Your task to perform on an android device: turn on wifi Image 0: 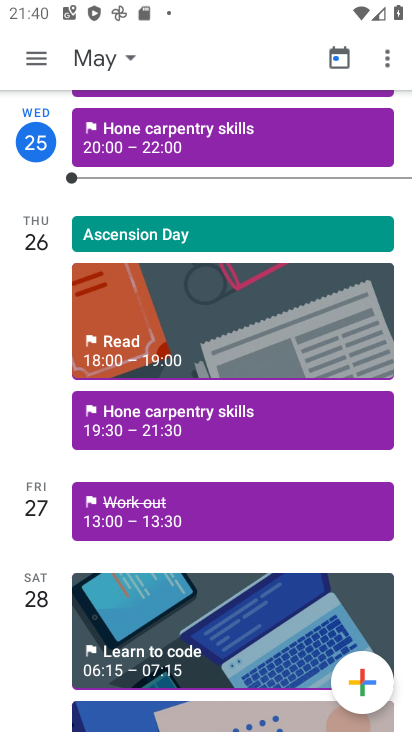
Step 0: press home button
Your task to perform on an android device: turn on wifi Image 1: 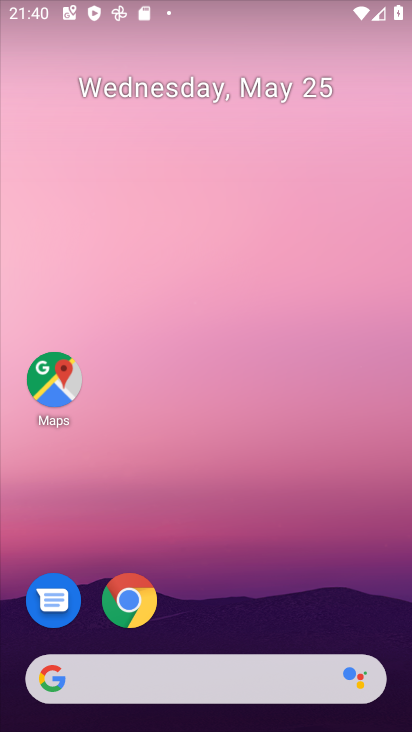
Step 1: drag from (311, 573) to (261, 184)
Your task to perform on an android device: turn on wifi Image 2: 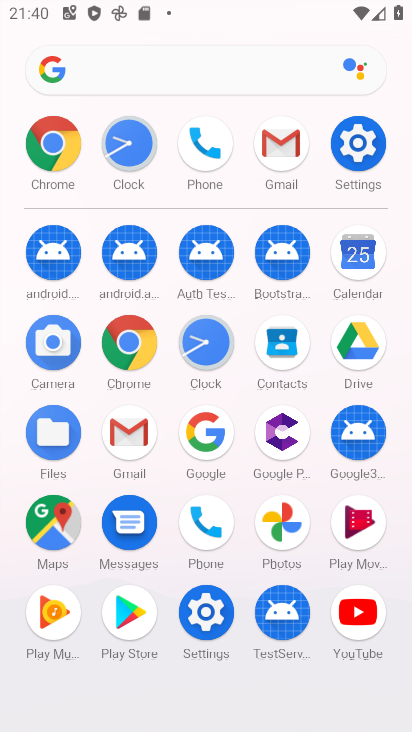
Step 2: click (343, 154)
Your task to perform on an android device: turn on wifi Image 3: 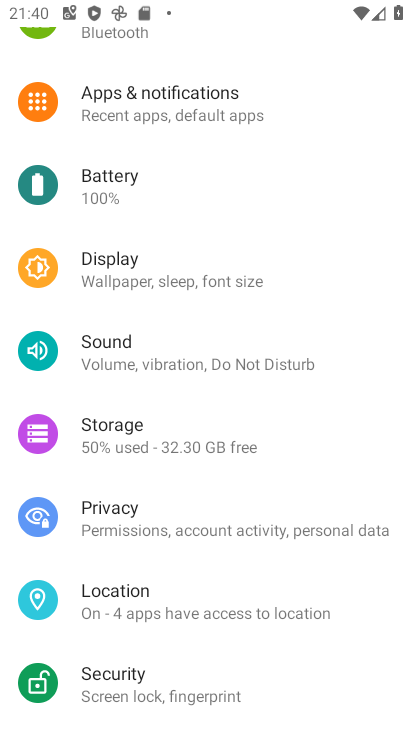
Step 3: drag from (231, 93) to (271, 617)
Your task to perform on an android device: turn on wifi Image 4: 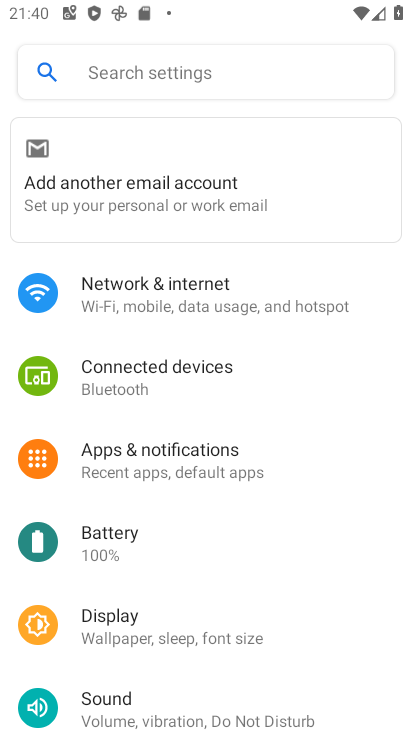
Step 4: click (201, 308)
Your task to perform on an android device: turn on wifi Image 5: 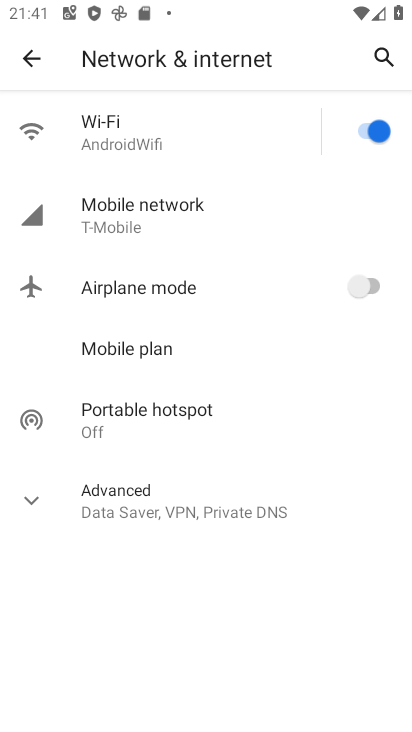
Step 5: task complete